Your task to perform on an android device: turn off priority inbox in the gmail app Image 0: 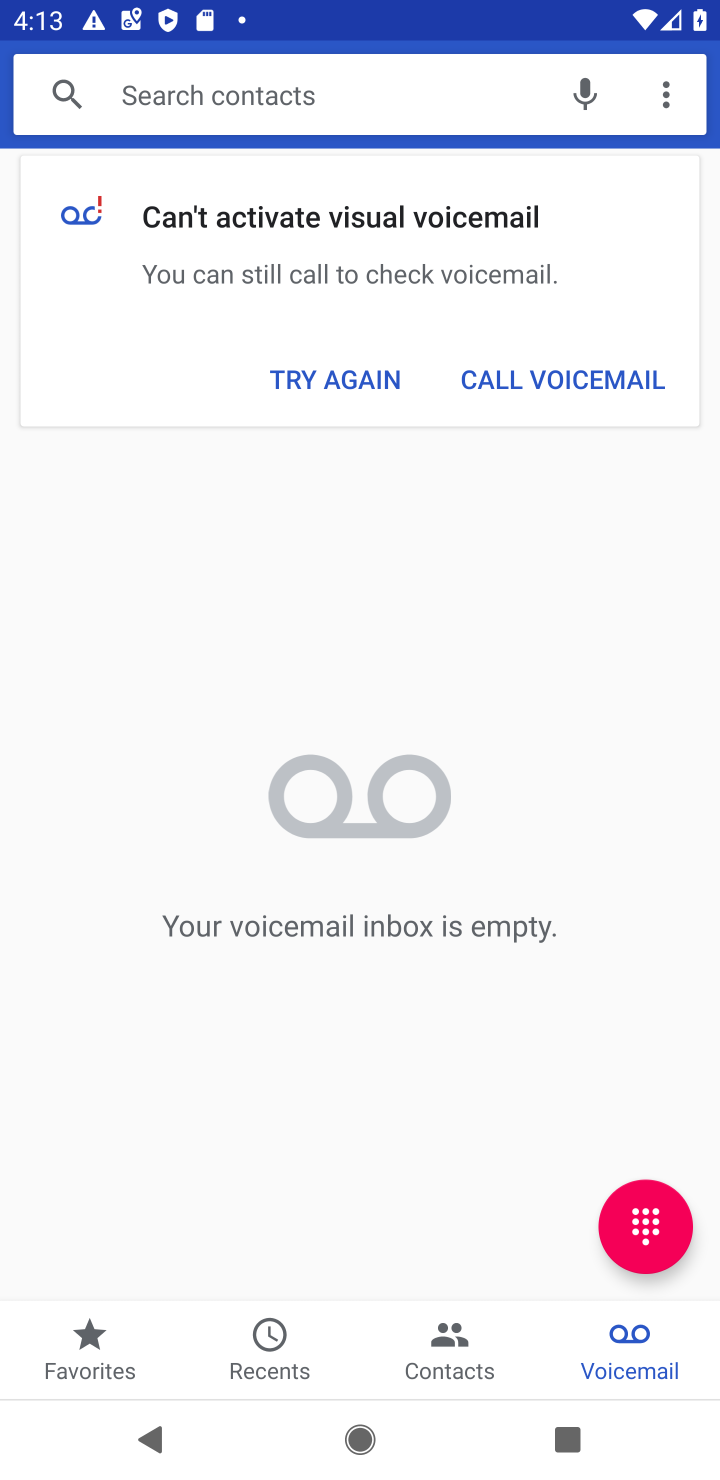
Step 0: press home button
Your task to perform on an android device: turn off priority inbox in the gmail app Image 1: 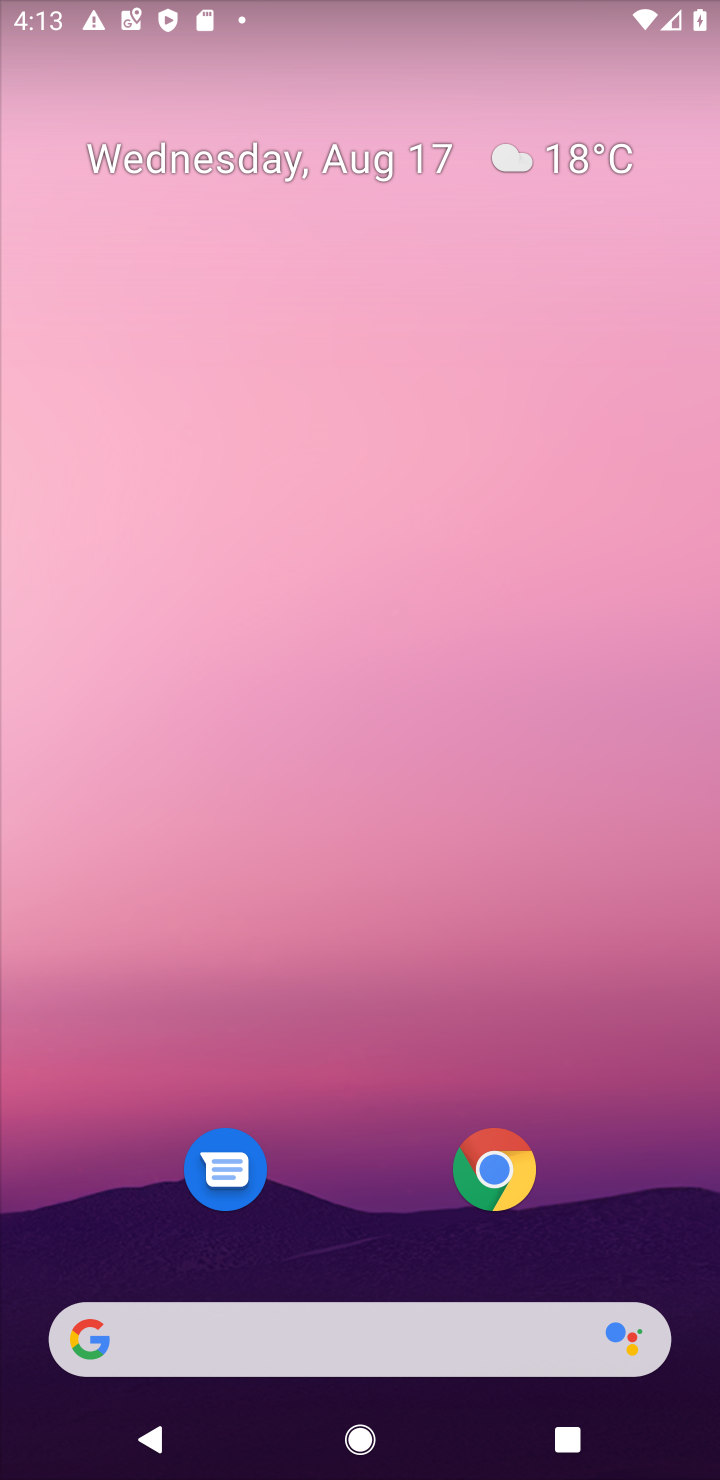
Step 1: drag from (332, 1195) to (344, 22)
Your task to perform on an android device: turn off priority inbox in the gmail app Image 2: 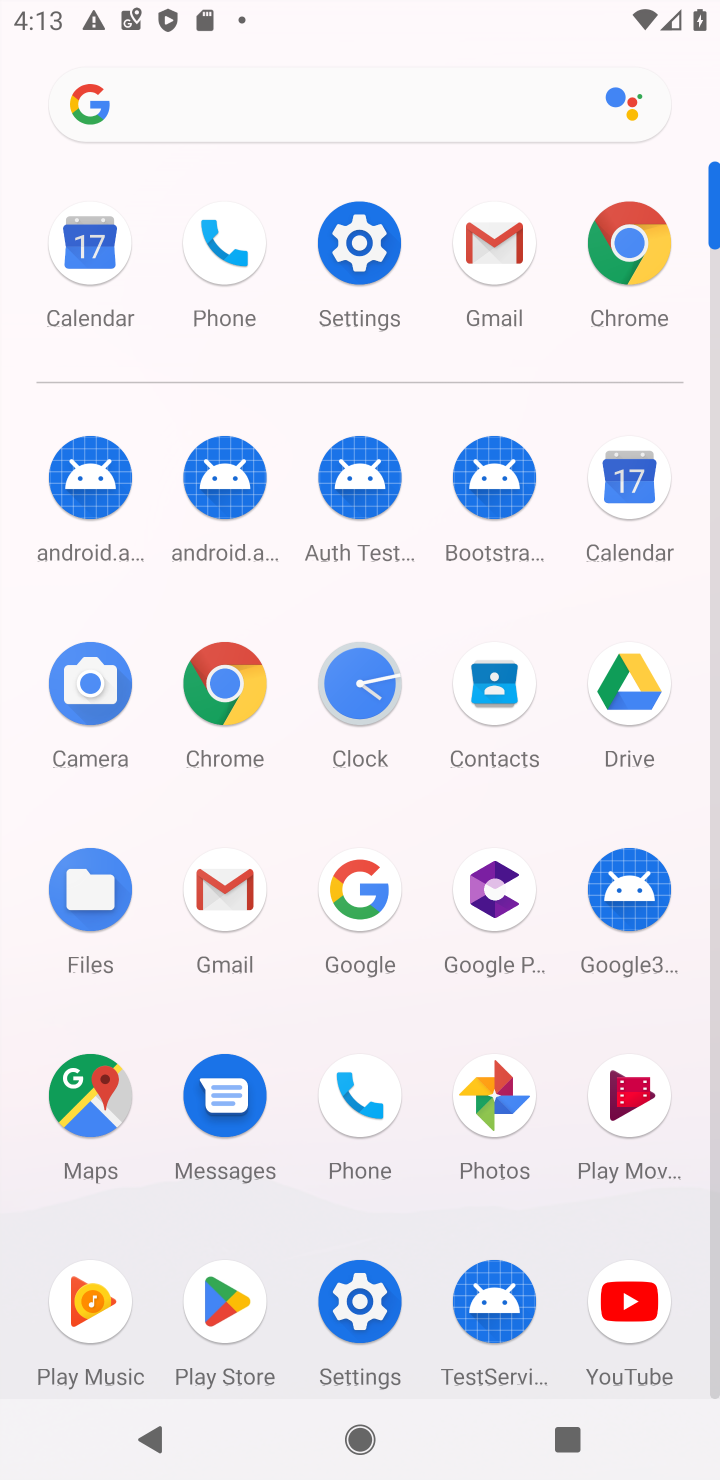
Step 2: click (226, 889)
Your task to perform on an android device: turn off priority inbox in the gmail app Image 3: 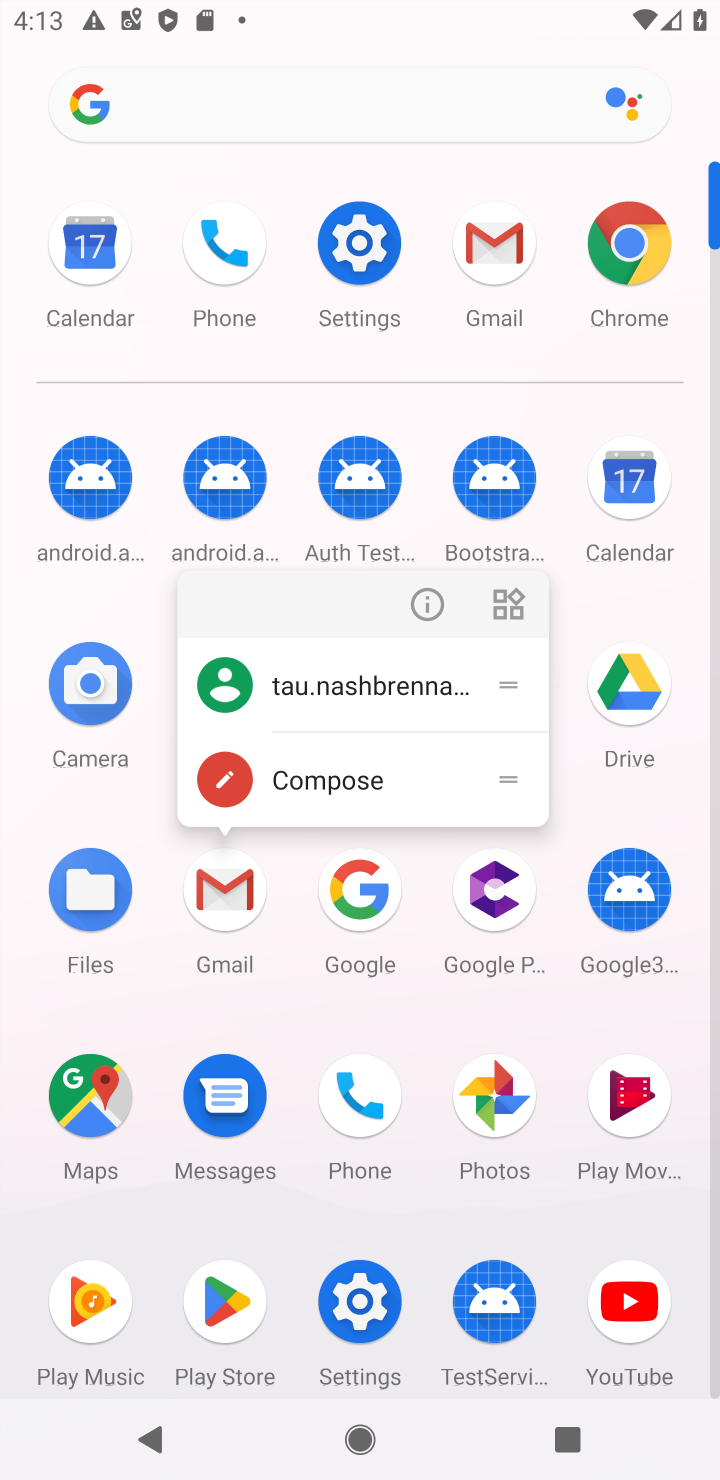
Step 3: click (222, 886)
Your task to perform on an android device: turn off priority inbox in the gmail app Image 4: 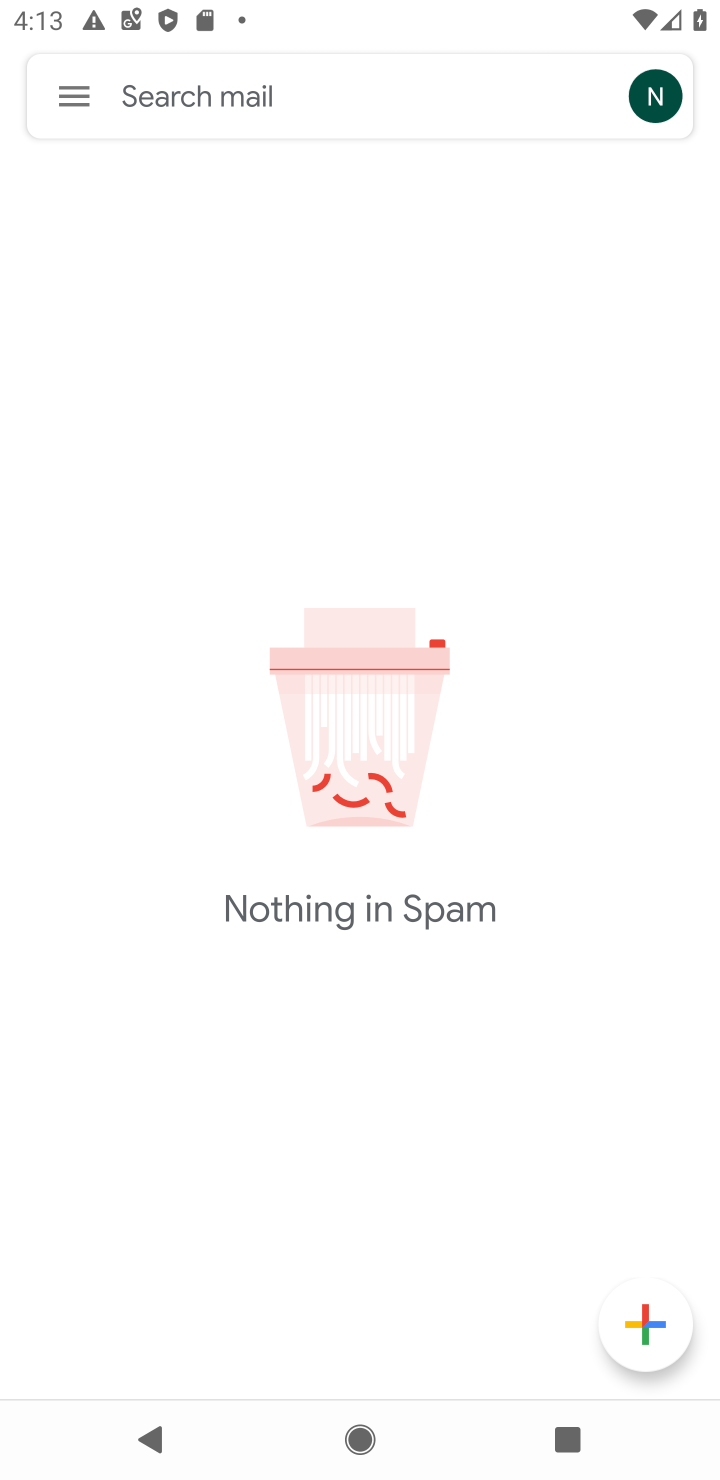
Step 4: click (87, 89)
Your task to perform on an android device: turn off priority inbox in the gmail app Image 5: 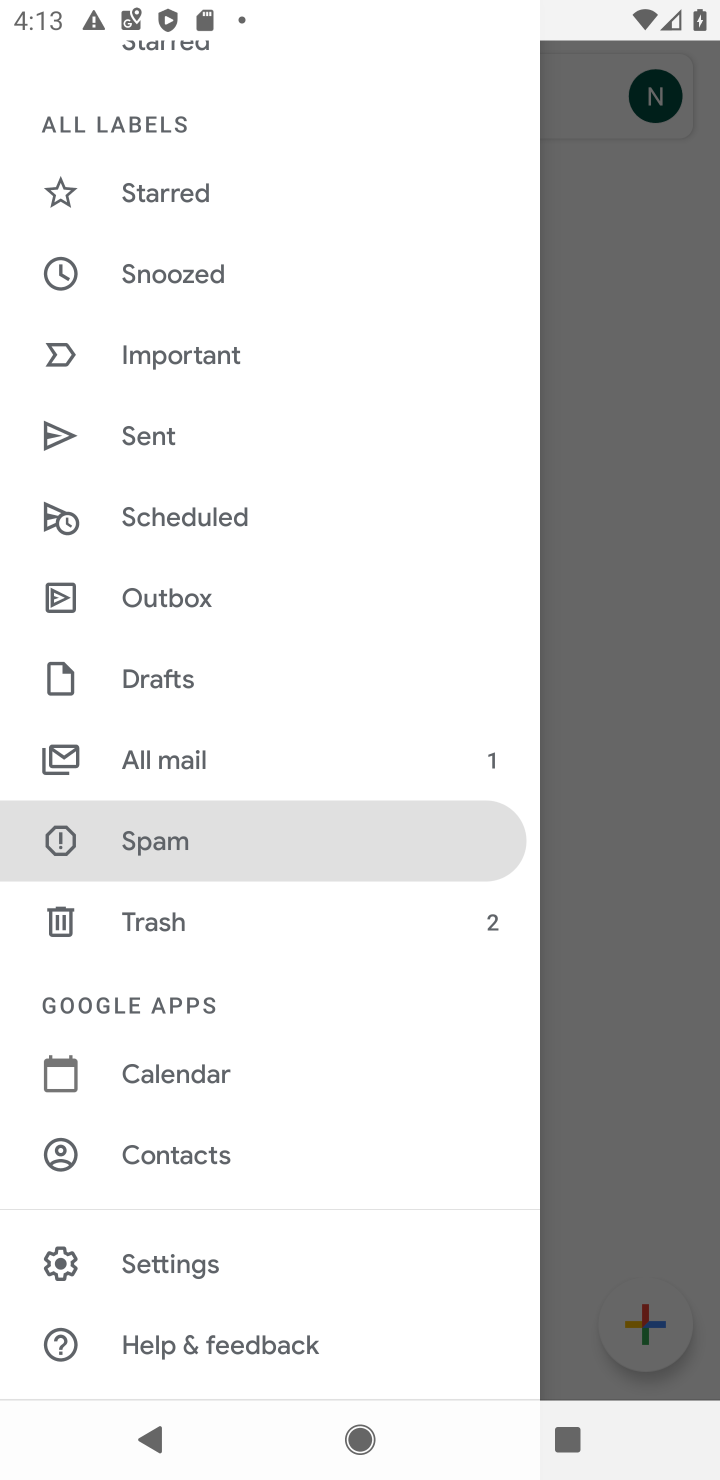
Step 5: click (152, 1264)
Your task to perform on an android device: turn off priority inbox in the gmail app Image 6: 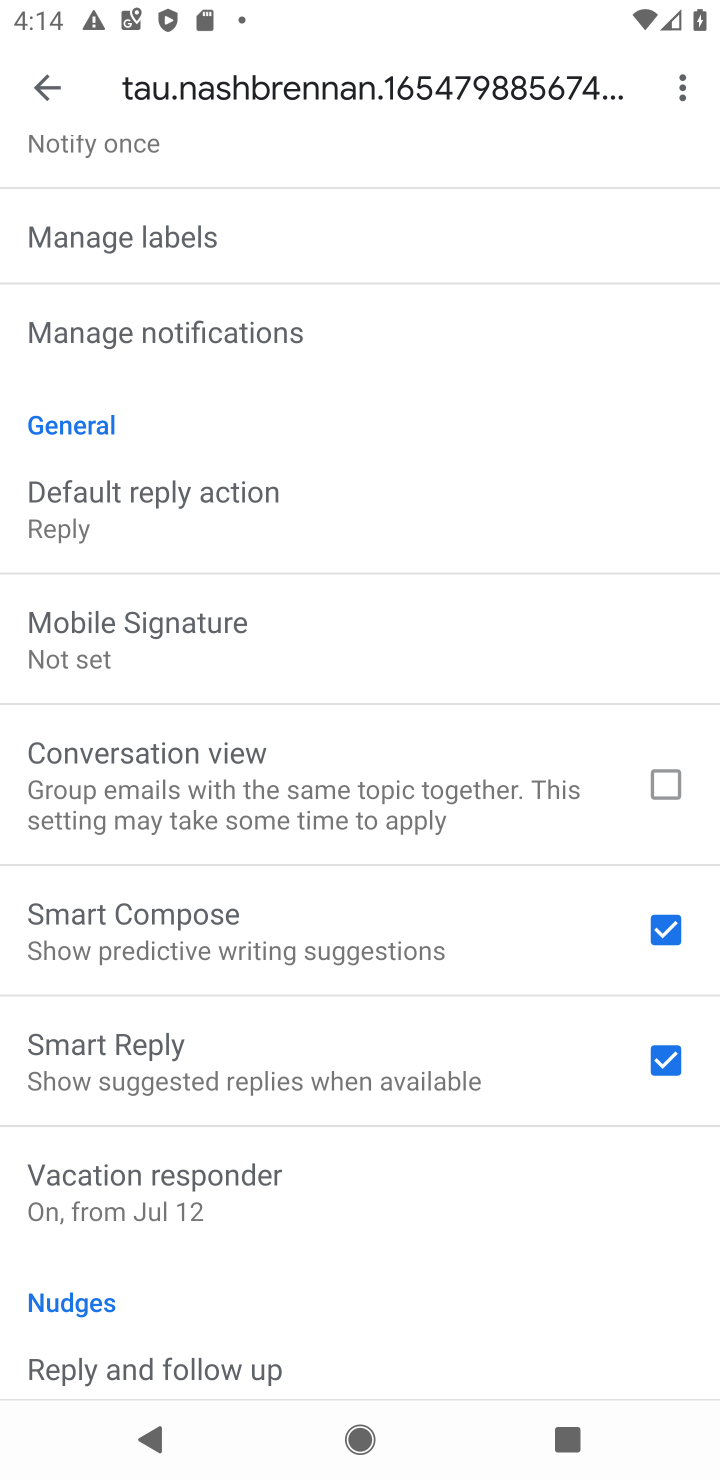
Step 6: drag from (266, 361) to (218, 1117)
Your task to perform on an android device: turn off priority inbox in the gmail app Image 7: 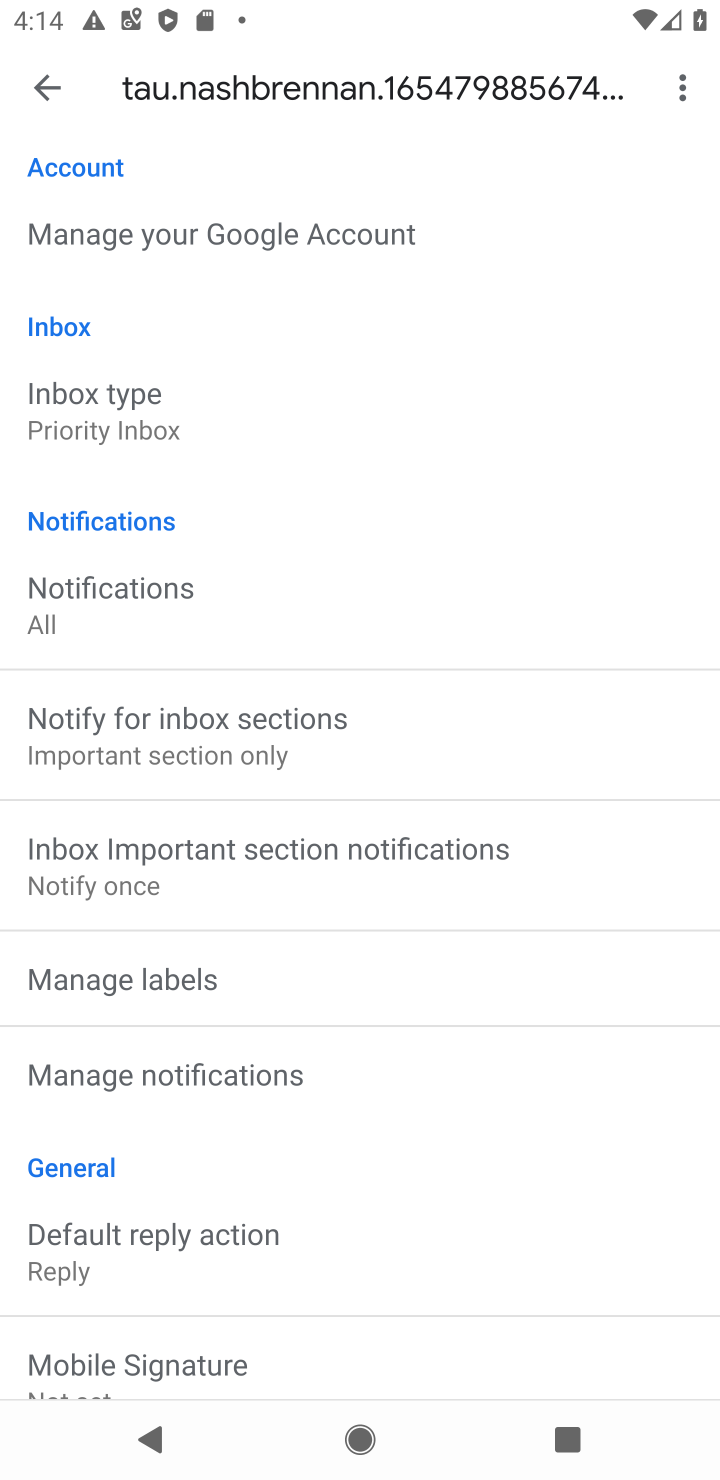
Step 7: click (99, 391)
Your task to perform on an android device: turn off priority inbox in the gmail app Image 8: 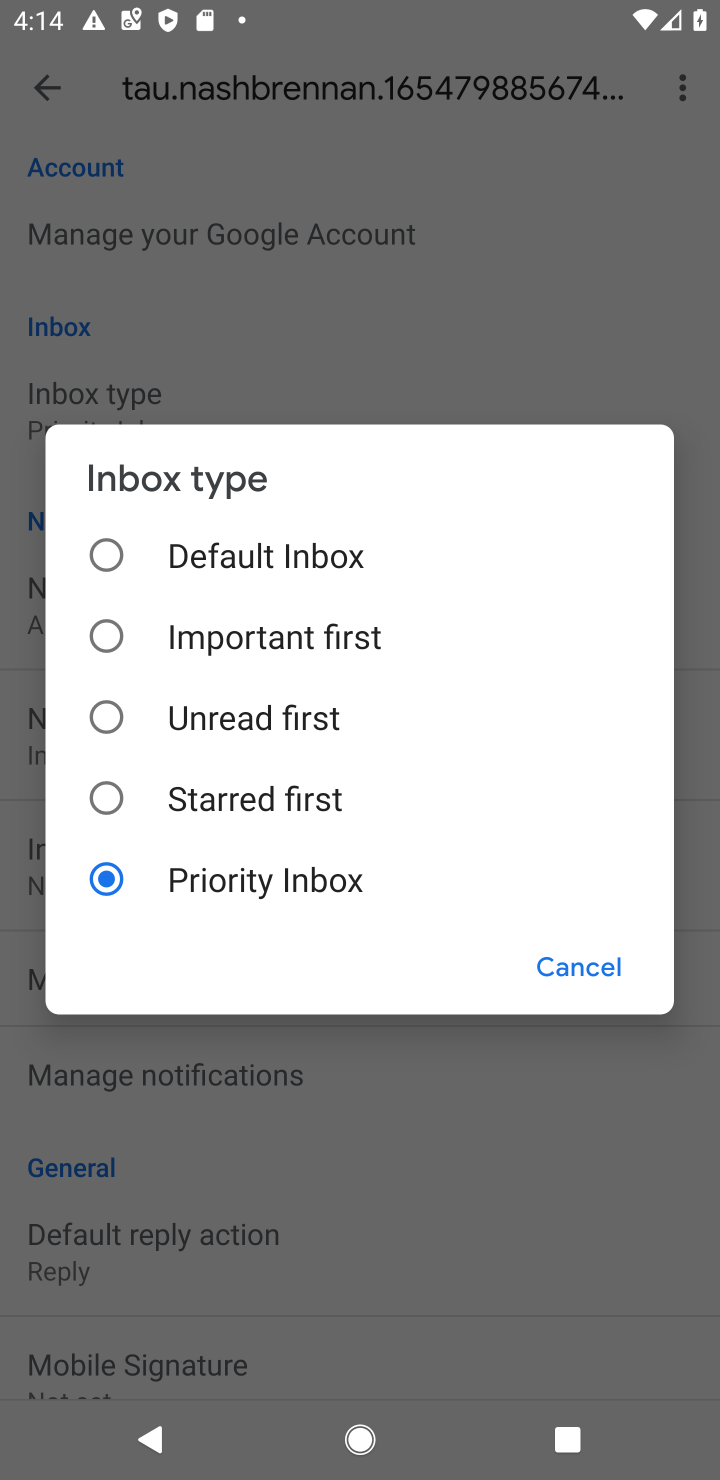
Step 8: click (257, 555)
Your task to perform on an android device: turn off priority inbox in the gmail app Image 9: 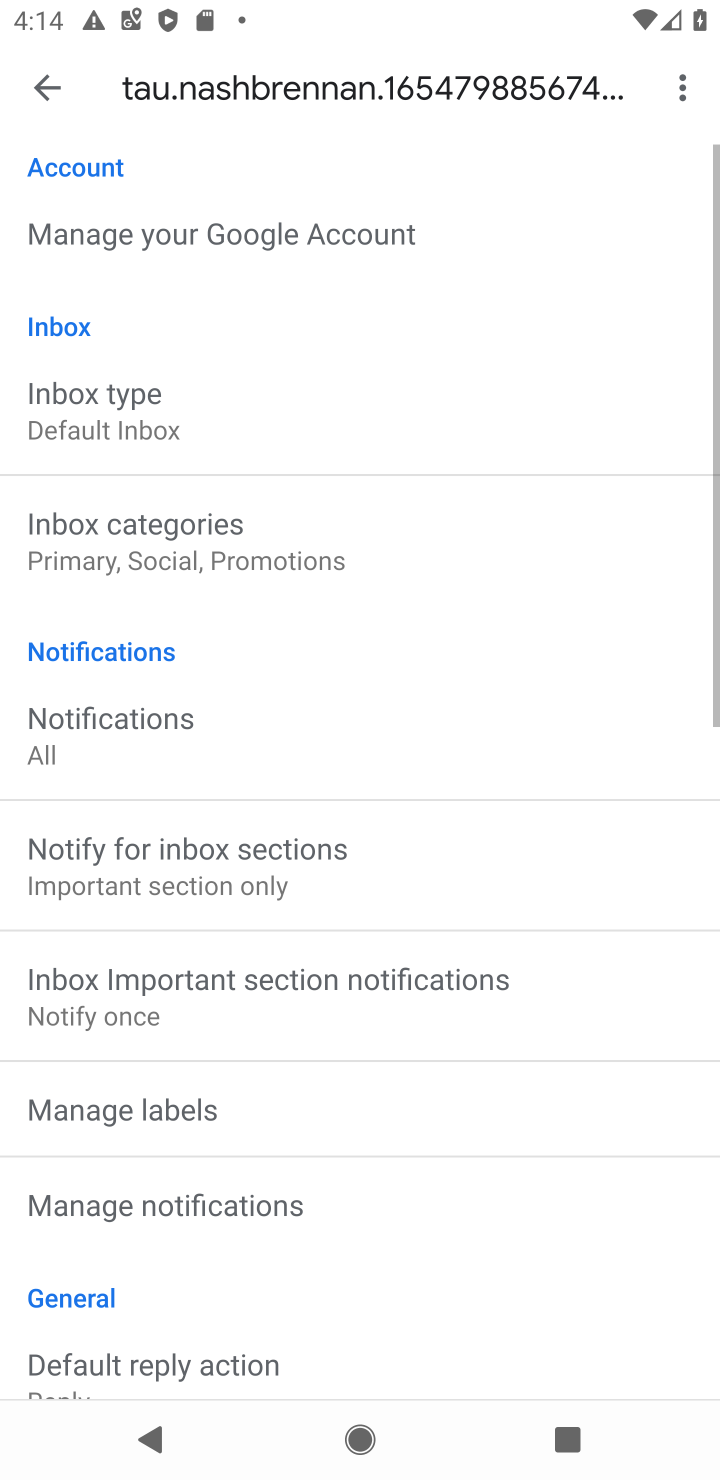
Step 9: task complete